Your task to perform on an android device: turn off sleep mode Image 0: 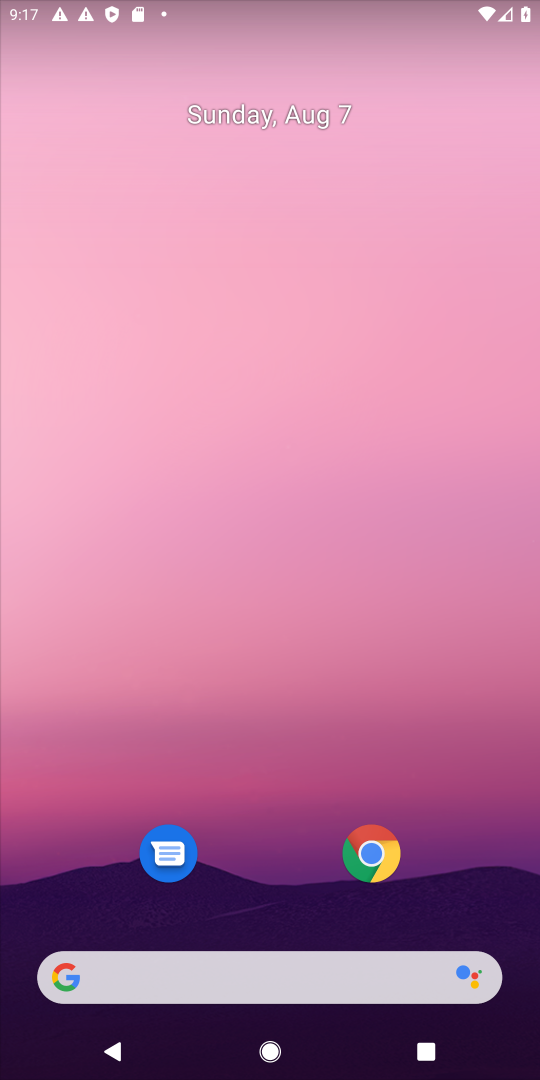
Step 0: press home button
Your task to perform on an android device: turn off sleep mode Image 1: 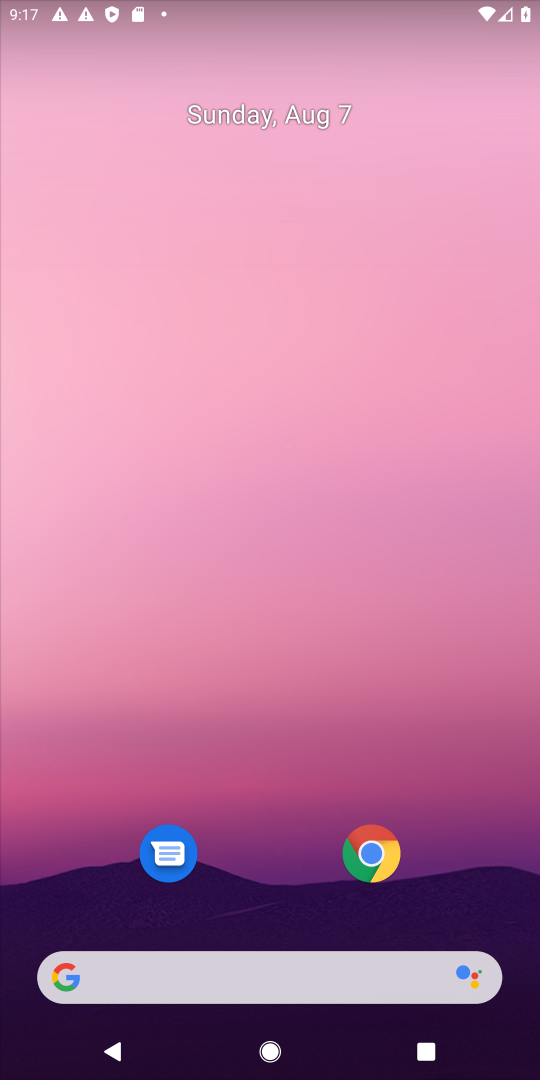
Step 1: drag from (252, 897) to (308, 264)
Your task to perform on an android device: turn off sleep mode Image 2: 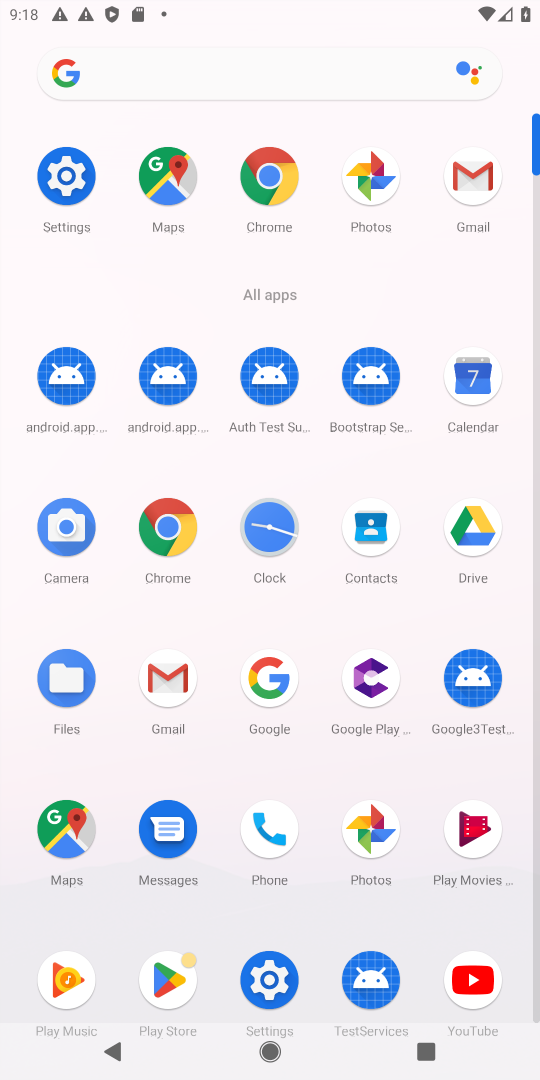
Step 2: click (63, 187)
Your task to perform on an android device: turn off sleep mode Image 3: 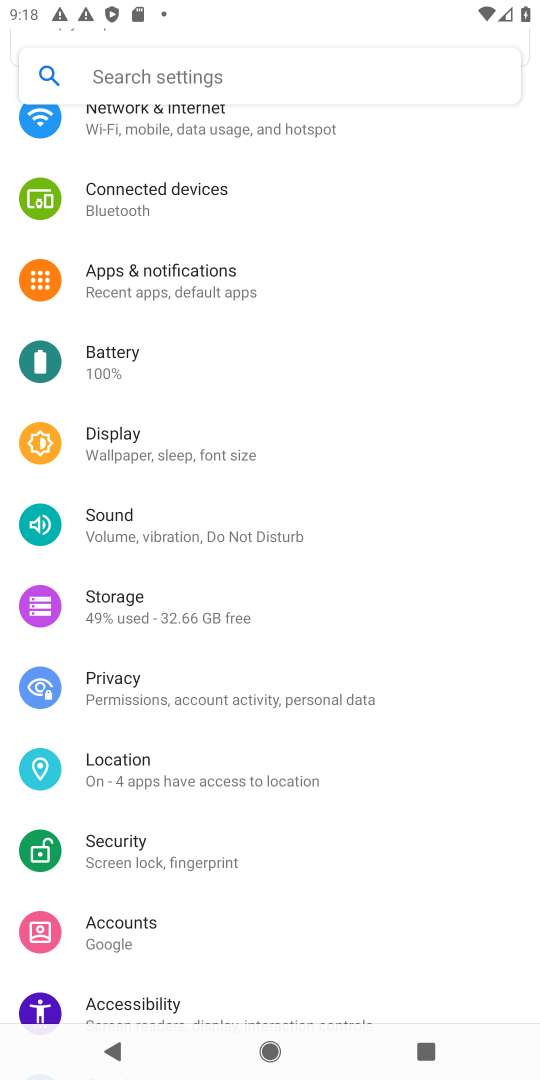
Step 3: drag from (427, 214) to (452, 424)
Your task to perform on an android device: turn off sleep mode Image 4: 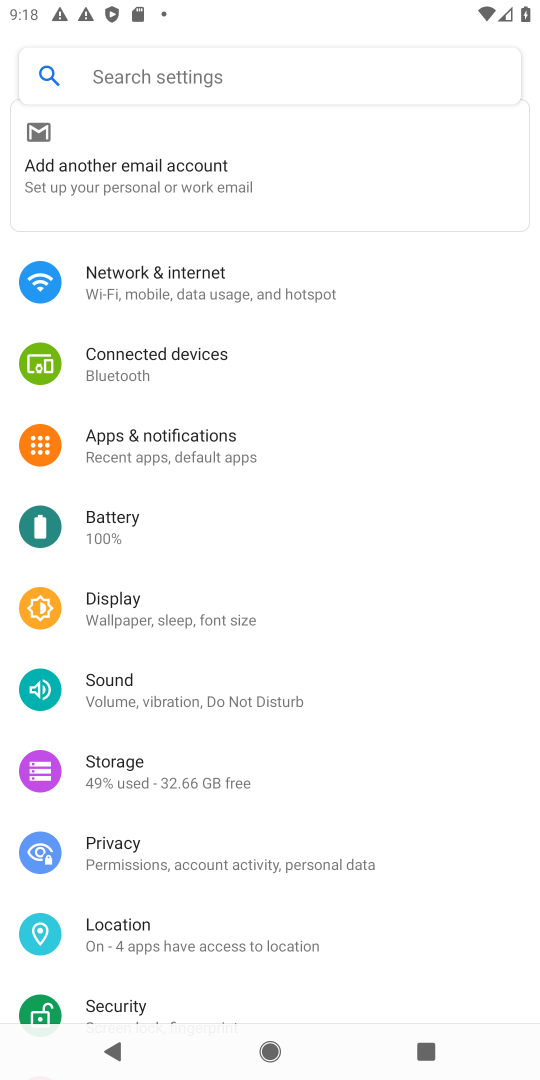
Step 4: drag from (446, 339) to (448, 584)
Your task to perform on an android device: turn off sleep mode Image 5: 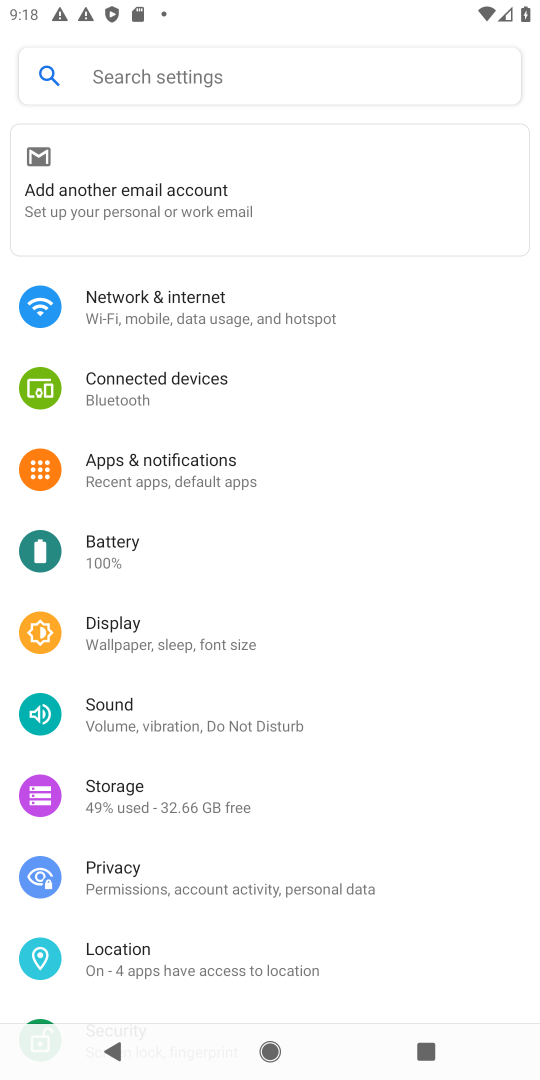
Step 5: drag from (418, 723) to (400, 485)
Your task to perform on an android device: turn off sleep mode Image 6: 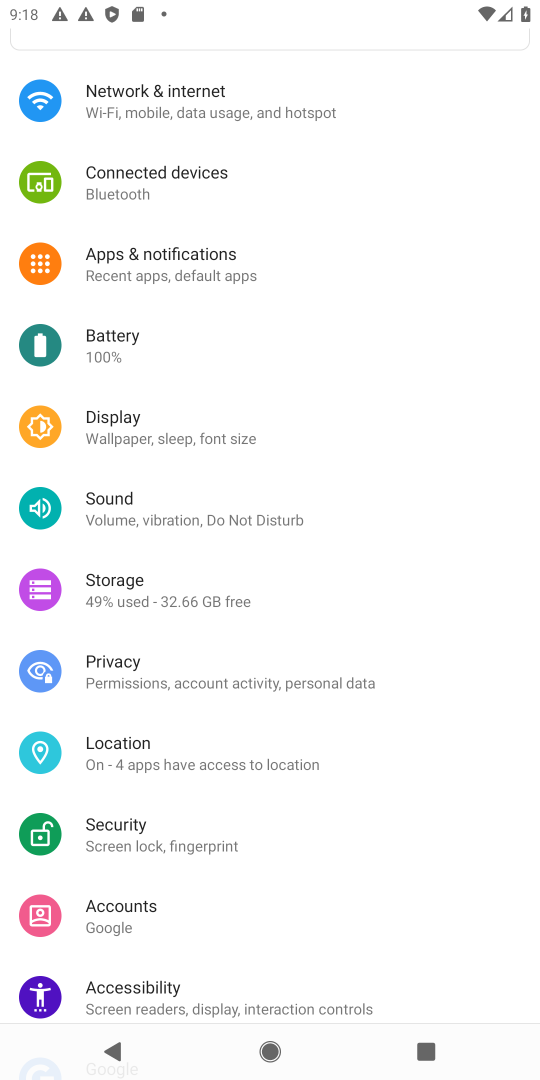
Step 6: drag from (435, 710) to (431, 499)
Your task to perform on an android device: turn off sleep mode Image 7: 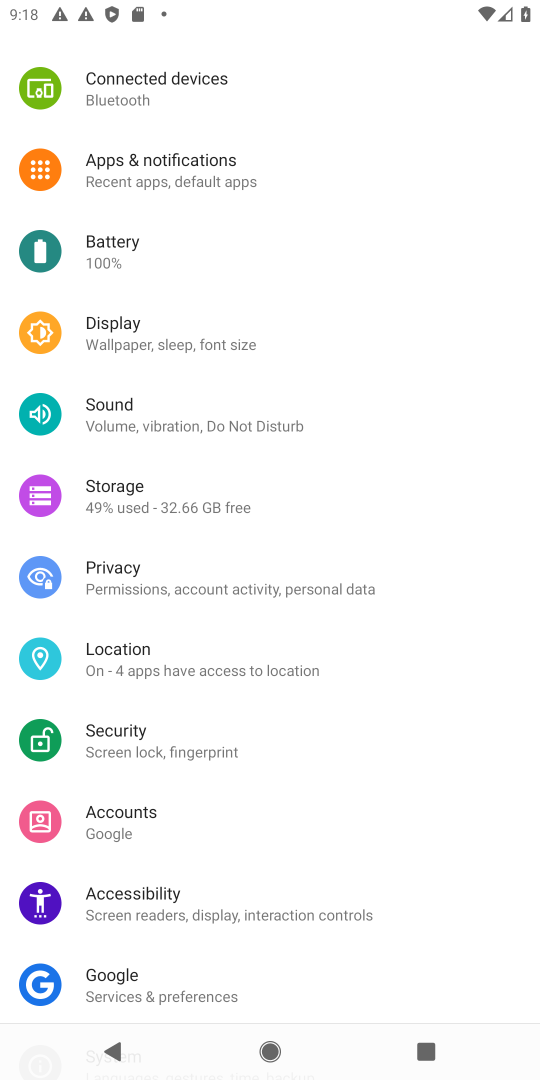
Step 7: drag from (446, 711) to (441, 528)
Your task to perform on an android device: turn off sleep mode Image 8: 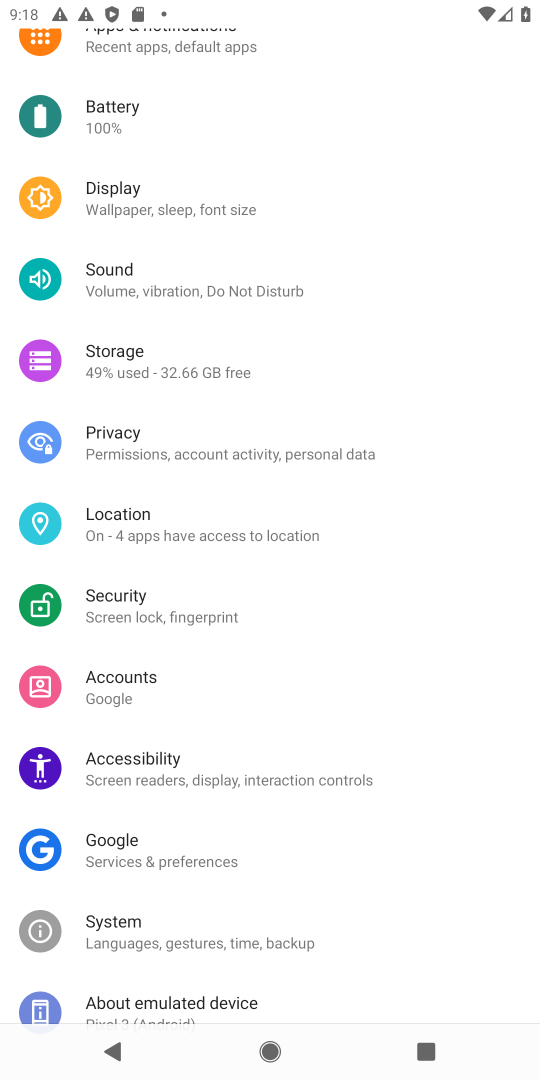
Step 8: drag from (440, 721) to (444, 571)
Your task to perform on an android device: turn off sleep mode Image 9: 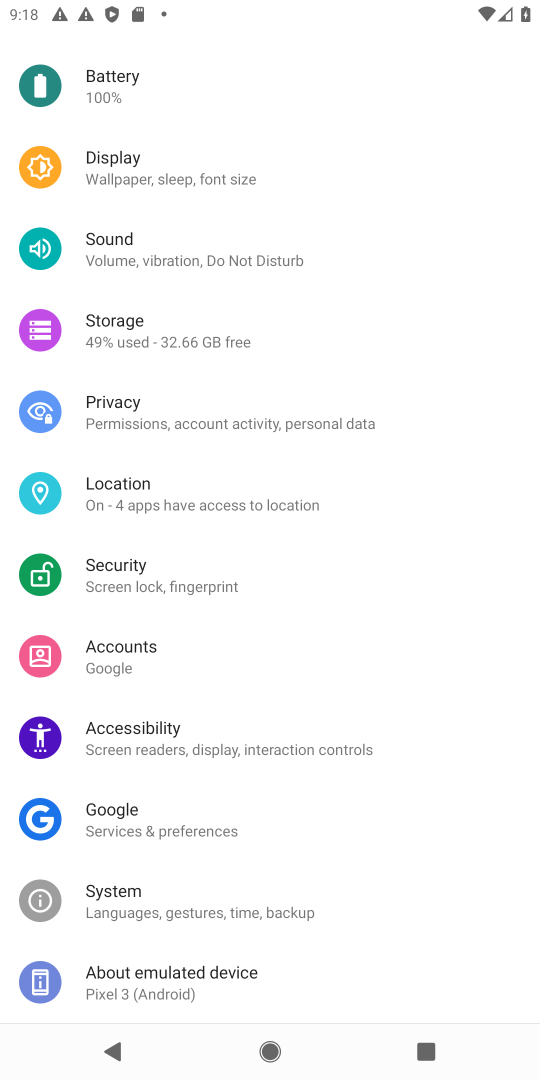
Step 9: drag from (443, 736) to (455, 538)
Your task to perform on an android device: turn off sleep mode Image 10: 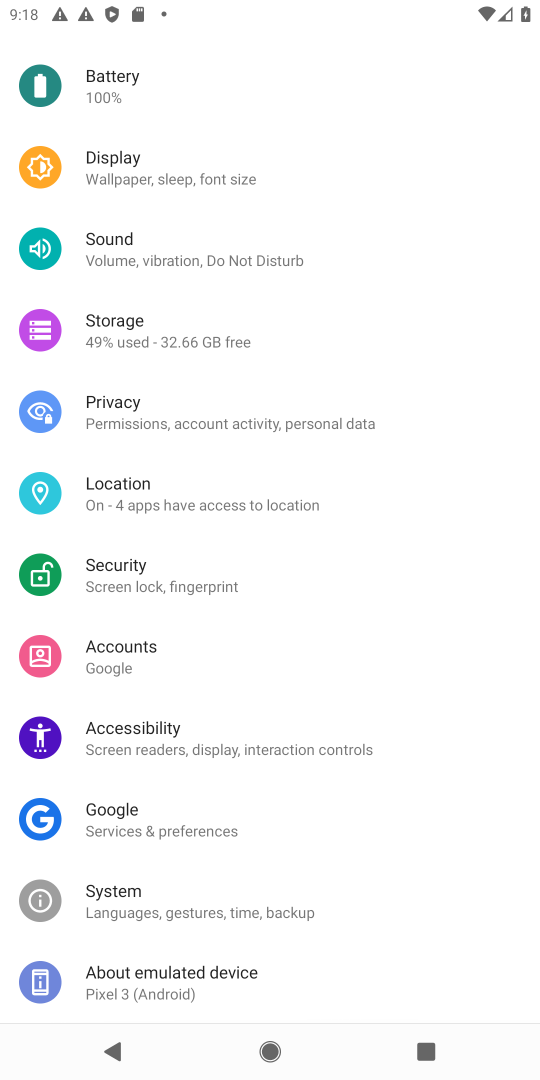
Step 10: drag from (471, 732) to (478, 454)
Your task to perform on an android device: turn off sleep mode Image 11: 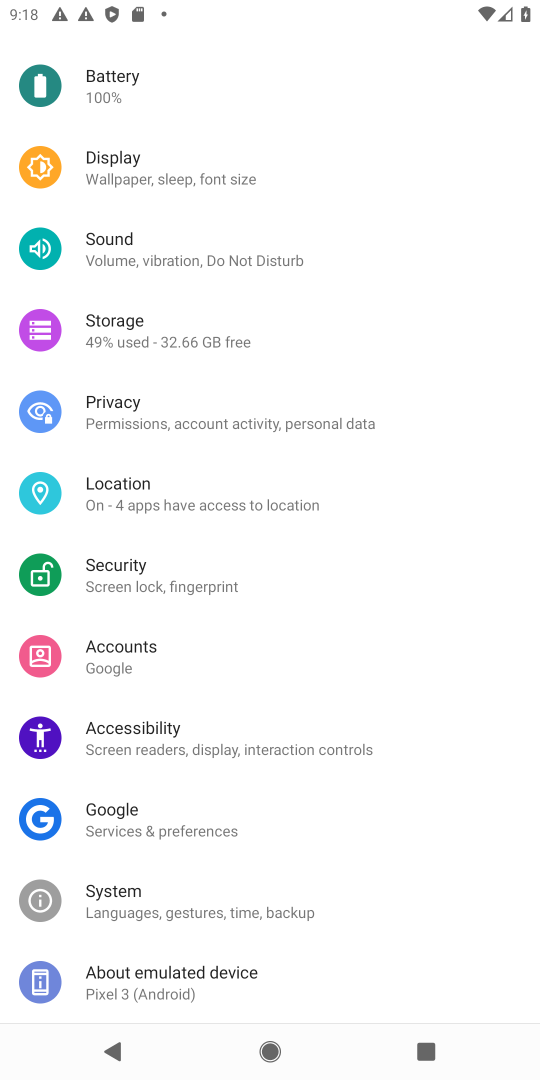
Step 11: drag from (466, 370) to (456, 566)
Your task to perform on an android device: turn off sleep mode Image 12: 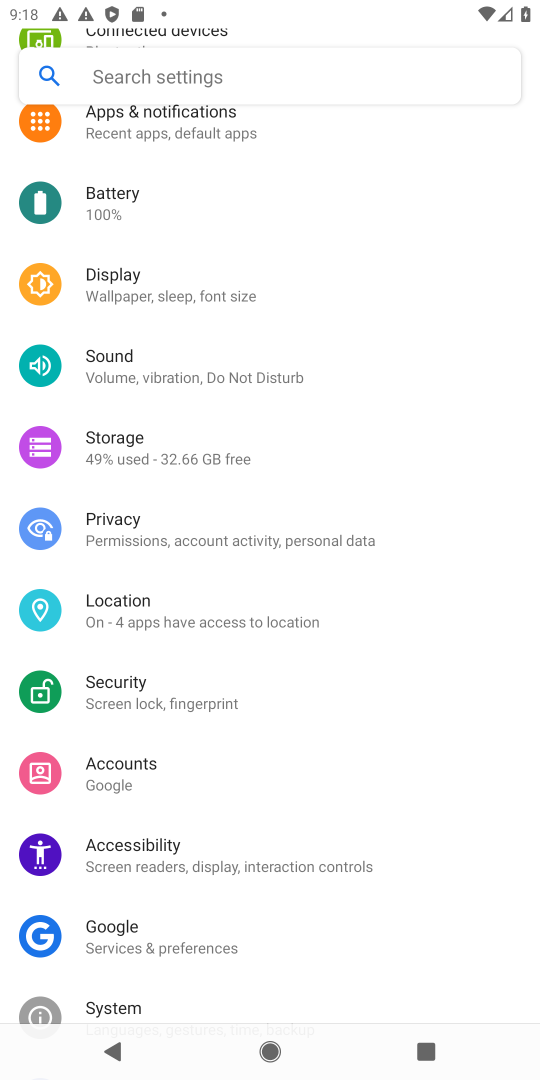
Step 12: drag from (445, 333) to (441, 537)
Your task to perform on an android device: turn off sleep mode Image 13: 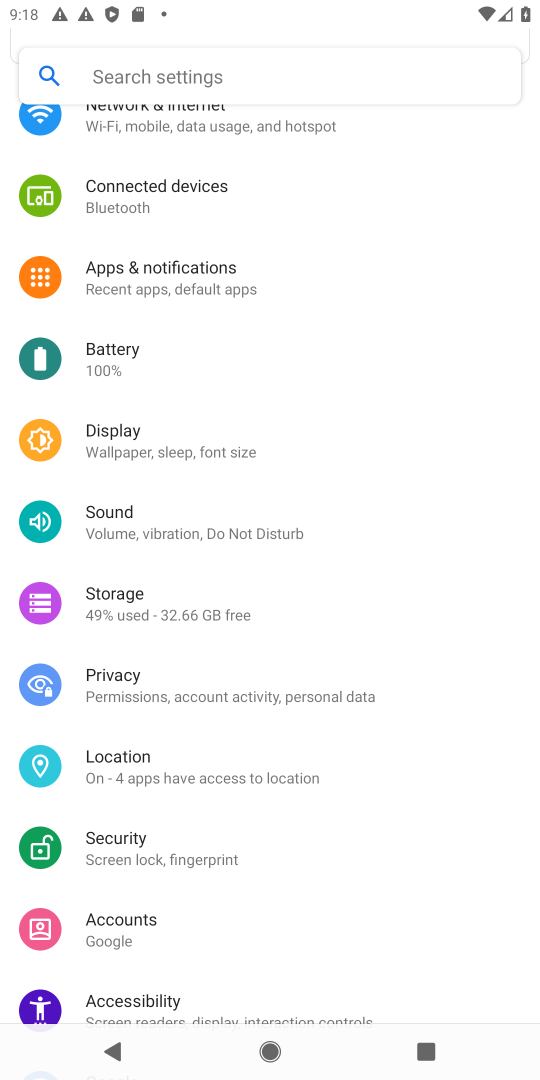
Step 13: drag from (427, 266) to (432, 510)
Your task to perform on an android device: turn off sleep mode Image 14: 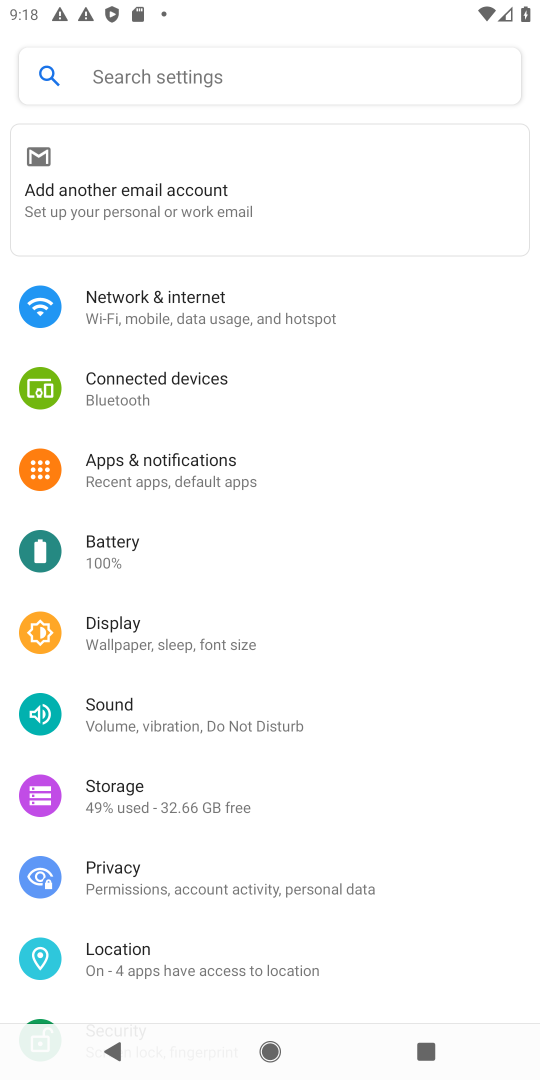
Step 14: click (221, 630)
Your task to perform on an android device: turn off sleep mode Image 15: 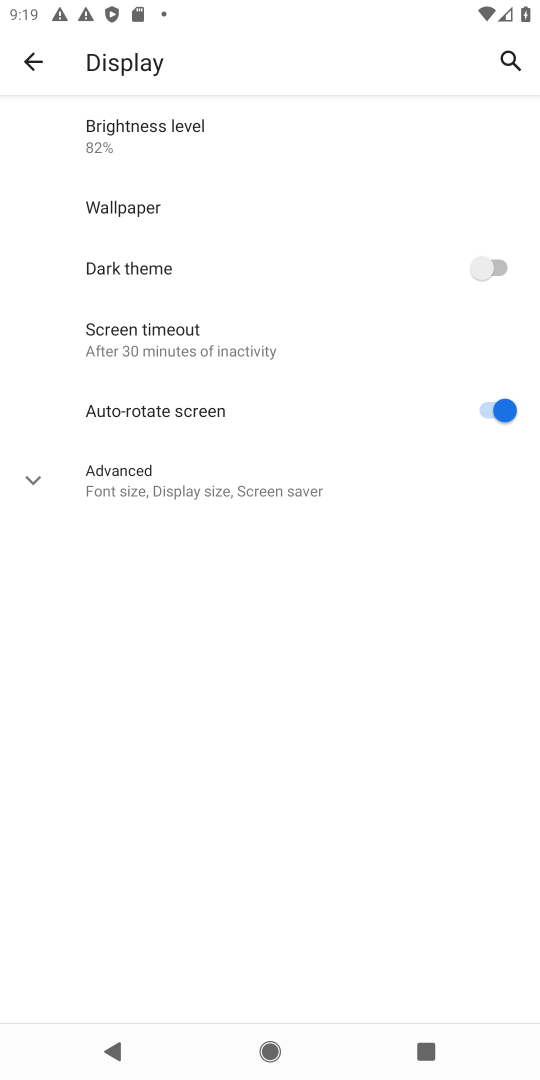
Step 15: drag from (329, 764) to (368, 527)
Your task to perform on an android device: turn off sleep mode Image 16: 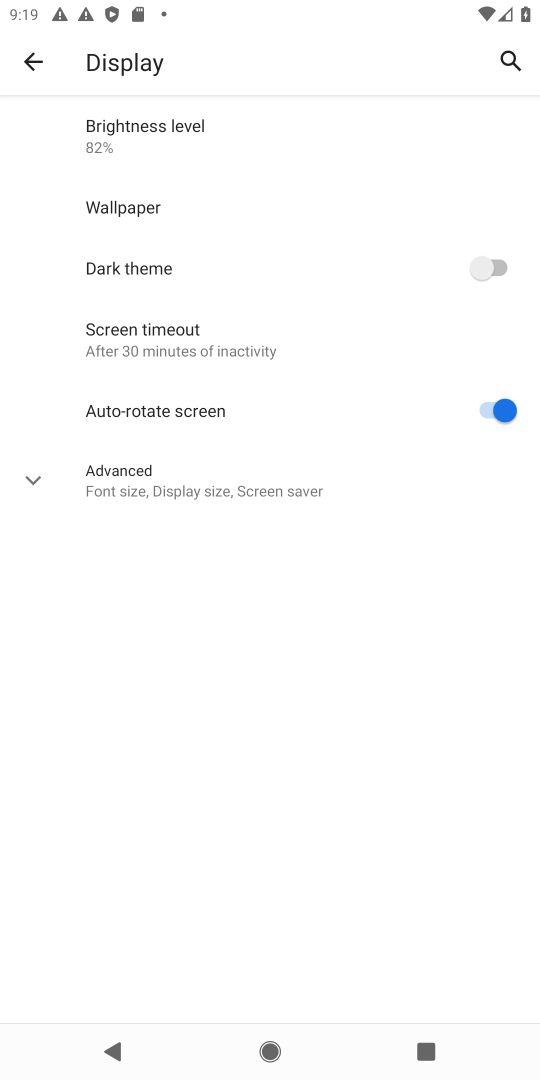
Step 16: click (293, 487)
Your task to perform on an android device: turn off sleep mode Image 17: 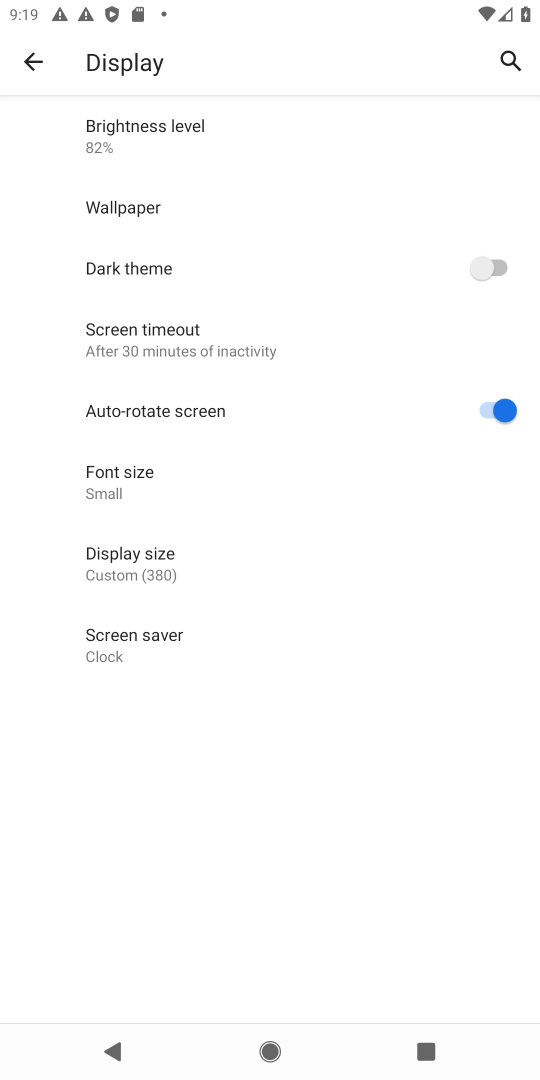
Step 17: task complete